Your task to perform on an android device: Search for Italian restaurants on Maps Image 0: 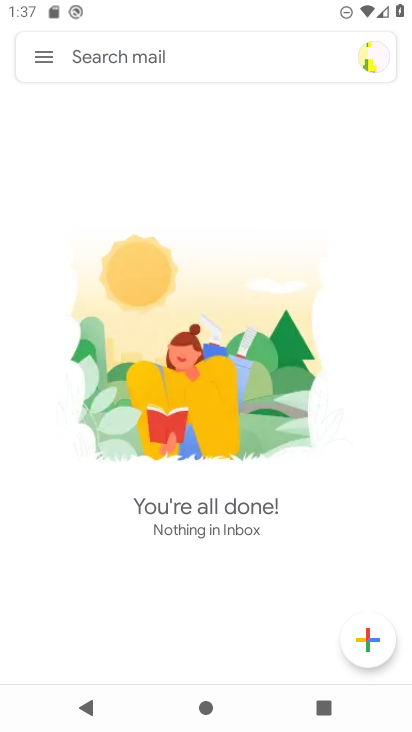
Step 0: press home button
Your task to perform on an android device: Search for Italian restaurants on Maps Image 1: 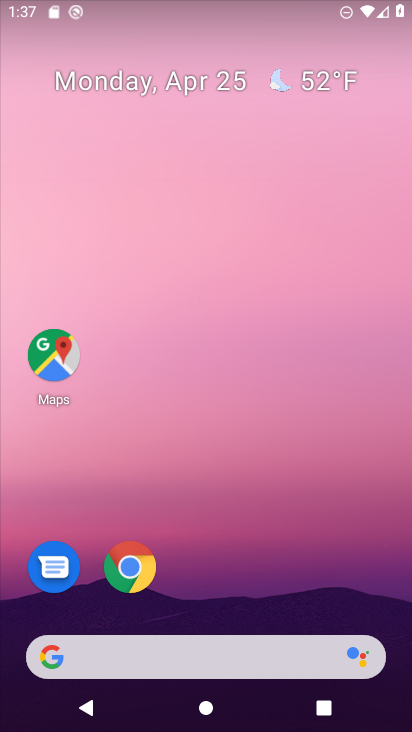
Step 1: click (55, 349)
Your task to perform on an android device: Search for Italian restaurants on Maps Image 2: 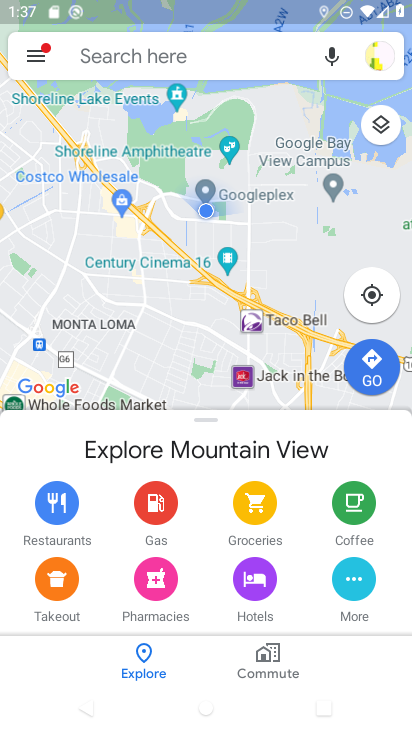
Step 2: click (226, 50)
Your task to perform on an android device: Search for Italian restaurants on Maps Image 3: 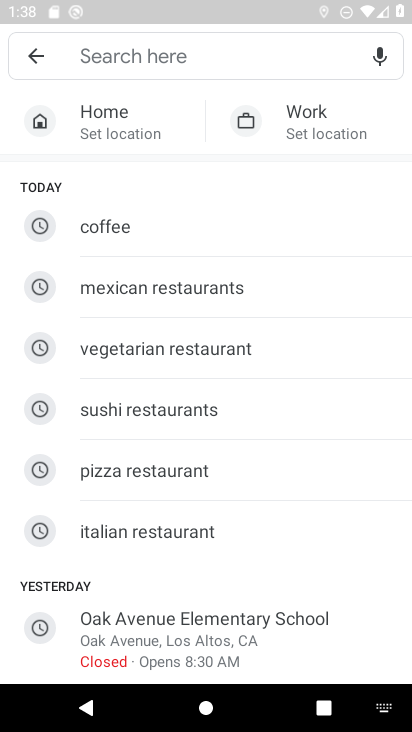
Step 3: click (185, 523)
Your task to perform on an android device: Search for Italian restaurants on Maps Image 4: 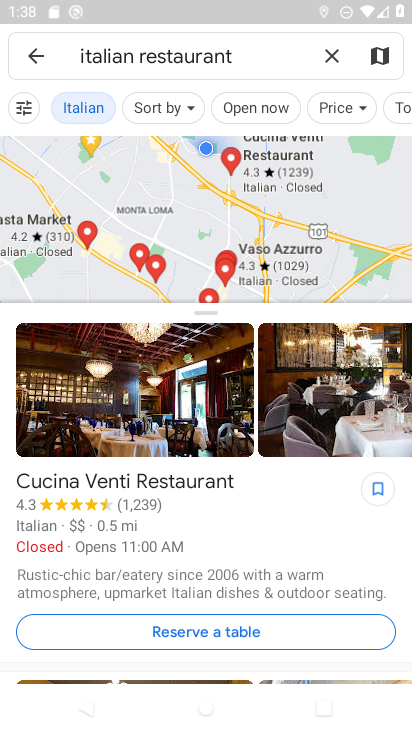
Step 4: task complete